Your task to perform on an android device: Go to location settings Image 0: 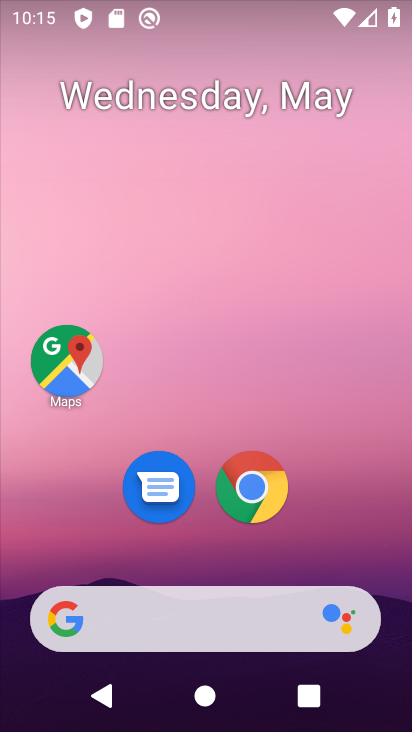
Step 0: drag from (332, 493) to (216, 2)
Your task to perform on an android device: Go to location settings Image 1: 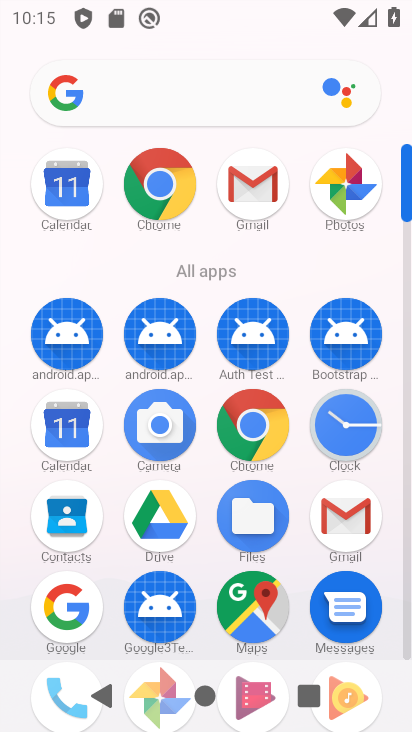
Step 1: drag from (9, 480) to (0, 197)
Your task to perform on an android device: Go to location settings Image 2: 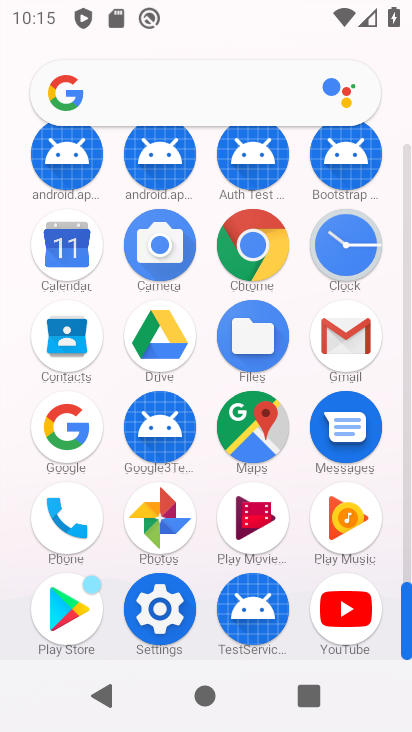
Step 2: click (159, 605)
Your task to perform on an android device: Go to location settings Image 3: 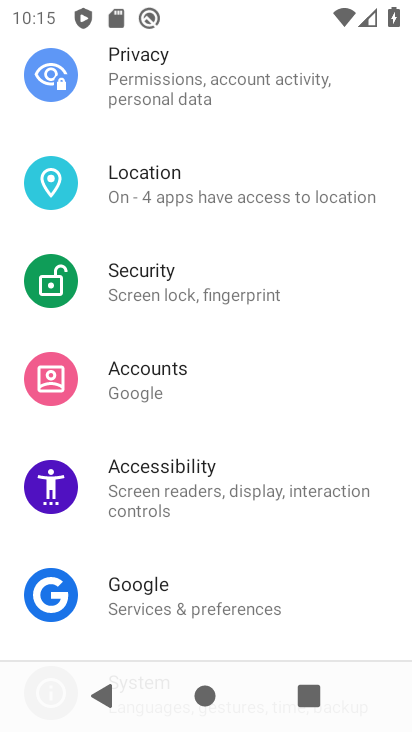
Step 3: click (212, 177)
Your task to perform on an android device: Go to location settings Image 4: 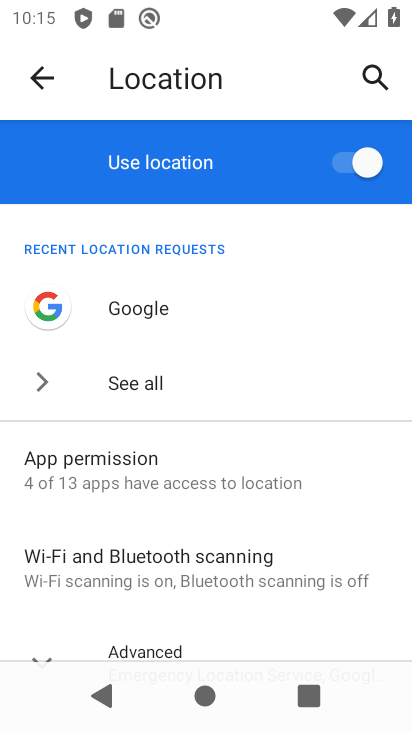
Step 4: drag from (231, 554) to (266, 254)
Your task to perform on an android device: Go to location settings Image 5: 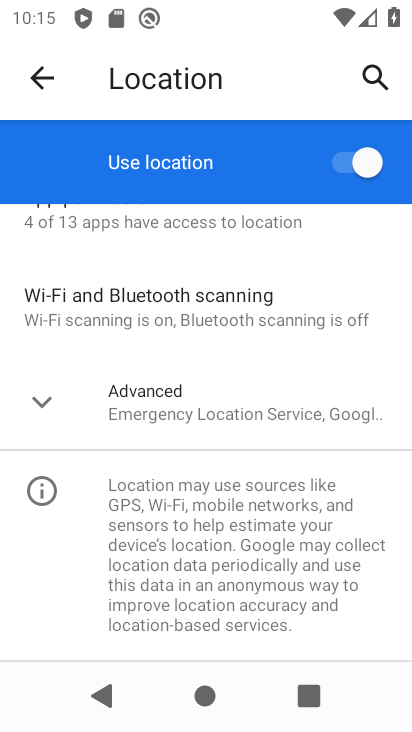
Step 5: click (58, 399)
Your task to perform on an android device: Go to location settings Image 6: 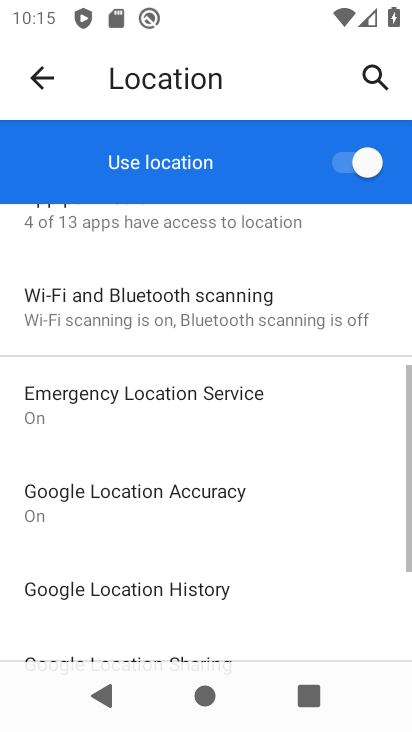
Step 6: task complete